Your task to perform on an android device: Open calendar and show me the third week of next month Image 0: 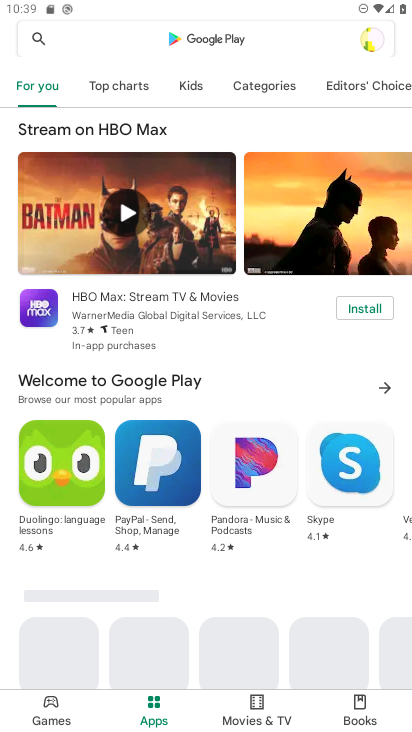
Step 0: press home button
Your task to perform on an android device: Open calendar and show me the third week of next month Image 1: 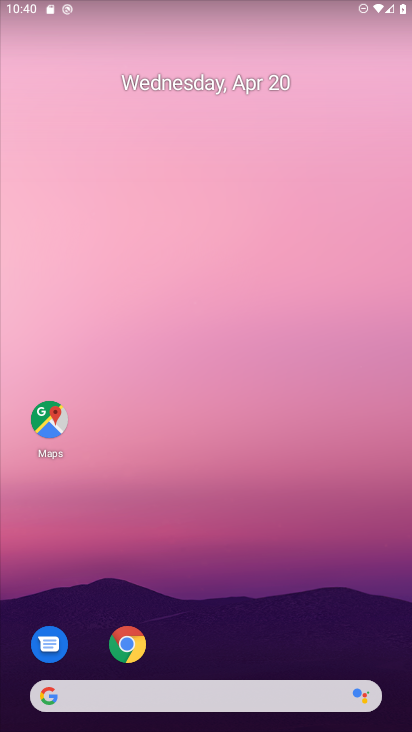
Step 1: drag from (336, 627) to (235, 54)
Your task to perform on an android device: Open calendar and show me the third week of next month Image 2: 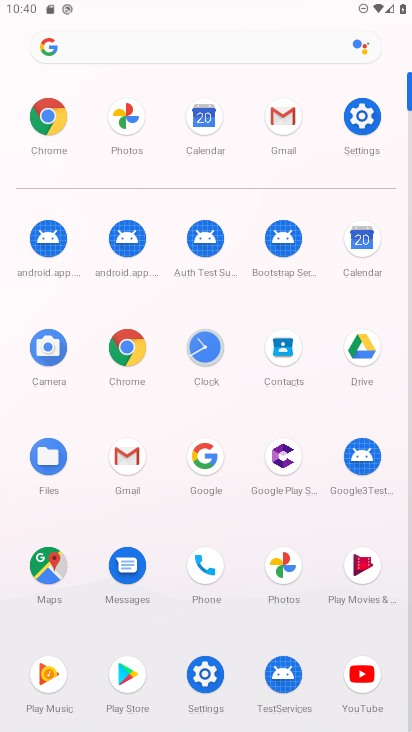
Step 2: click (355, 244)
Your task to perform on an android device: Open calendar and show me the third week of next month Image 3: 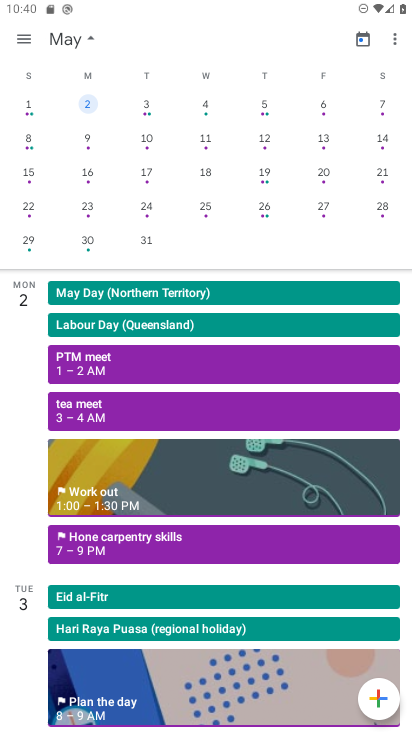
Step 3: drag from (353, 187) to (5, 138)
Your task to perform on an android device: Open calendar and show me the third week of next month Image 4: 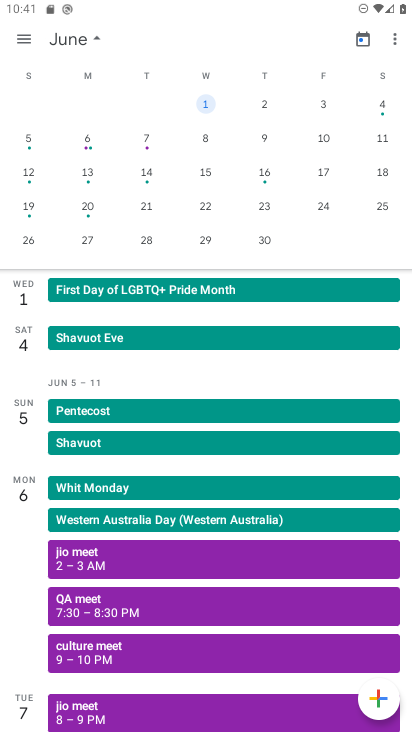
Step 4: click (88, 207)
Your task to perform on an android device: Open calendar and show me the third week of next month Image 5: 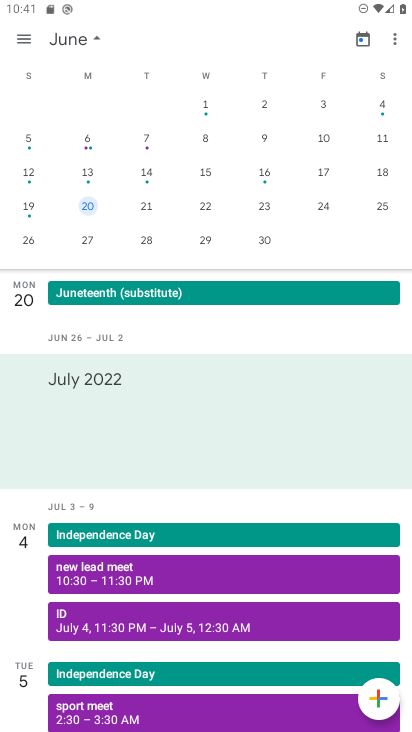
Step 5: task complete